Your task to perform on an android device: Open CNN.com Image 0: 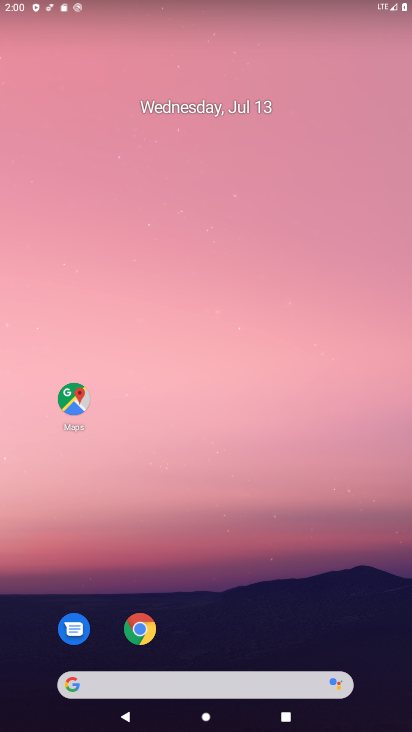
Step 0: drag from (302, 622) to (334, 131)
Your task to perform on an android device: Open CNN.com Image 1: 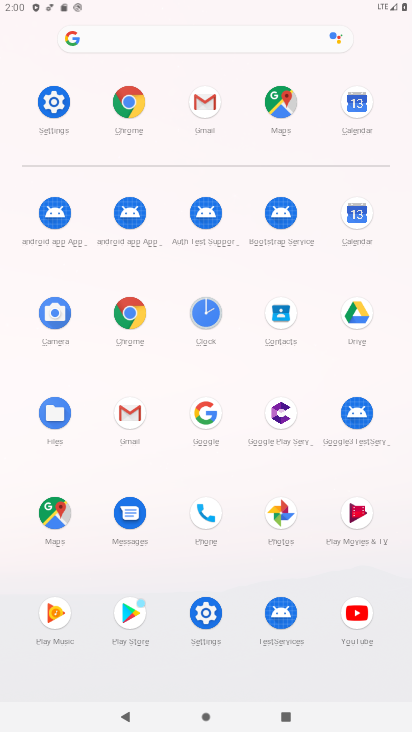
Step 1: click (114, 121)
Your task to perform on an android device: Open CNN.com Image 2: 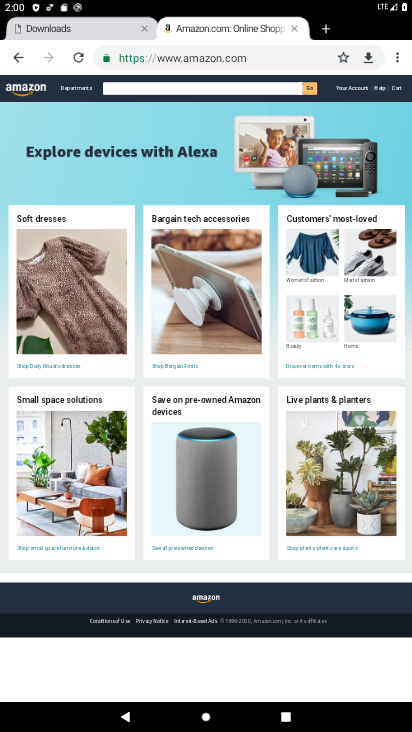
Step 2: click (322, 31)
Your task to perform on an android device: Open CNN.com Image 3: 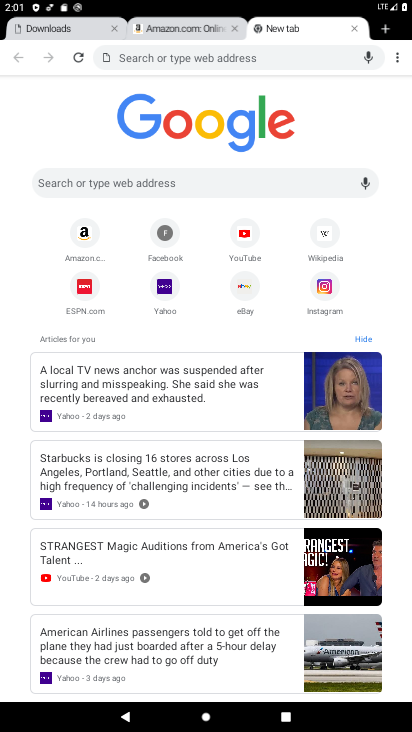
Step 3: type "cnn.com"
Your task to perform on an android device: Open CNN.com Image 4: 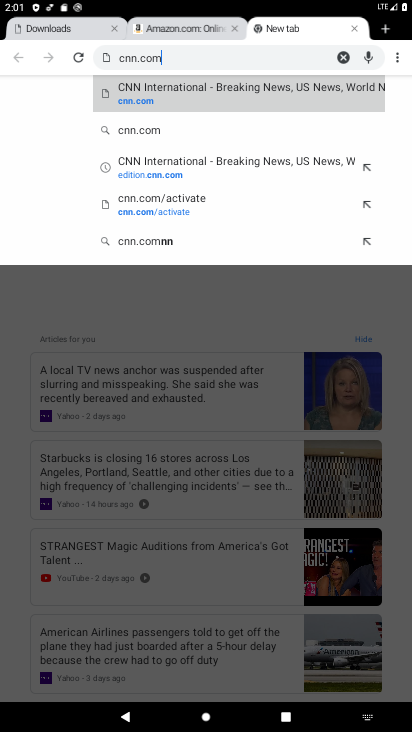
Step 4: click (161, 104)
Your task to perform on an android device: Open CNN.com Image 5: 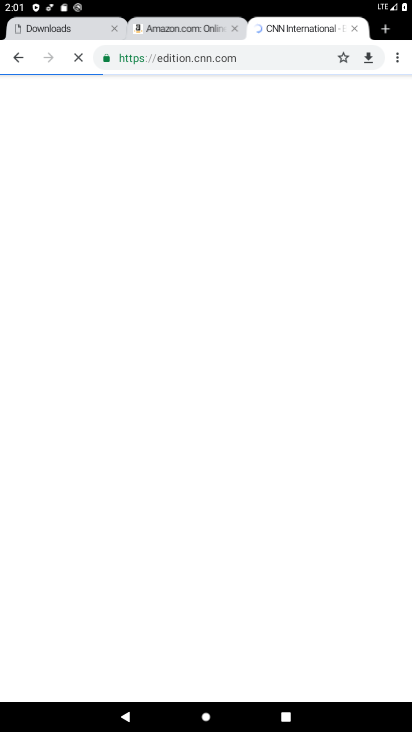
Step 5: task complete